Your task to perform on an android device: turn off location Image 0: 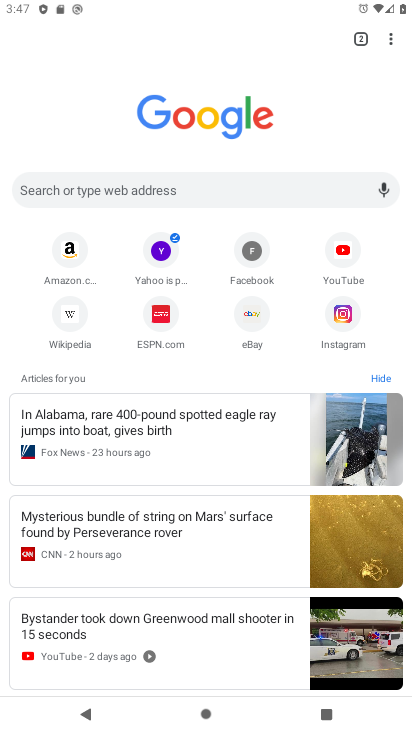
Step 0: press home button
Your task to perform on an android device: turn off location Image 1: 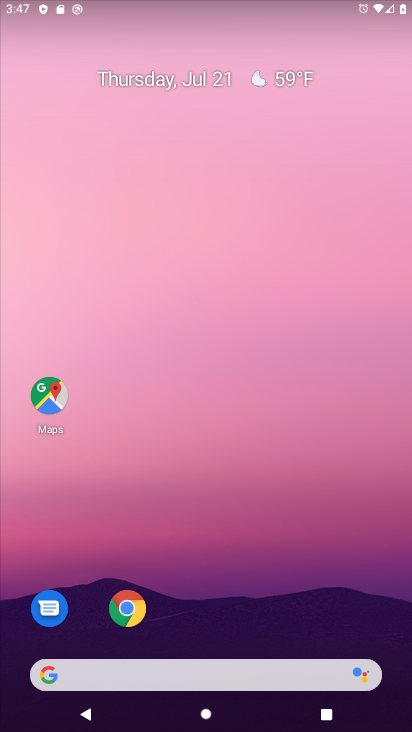
Step 1: task complete